Your task to perform on an android device: turn off wifi Image 0: 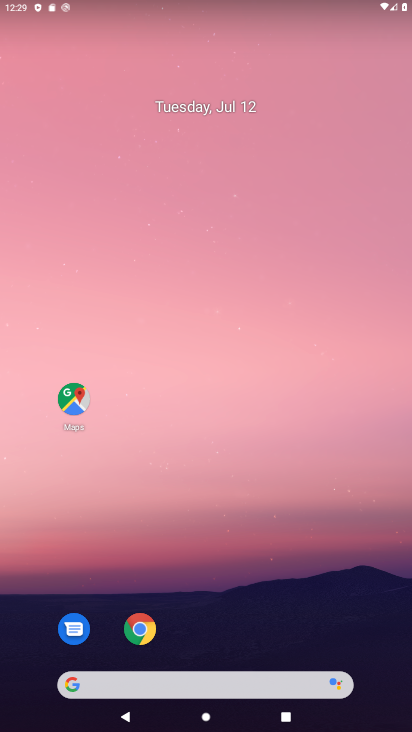
Step 0: drag from (276, 688) to (404, 204)
Your task to perform on an android device: turn off wifi Image 1: 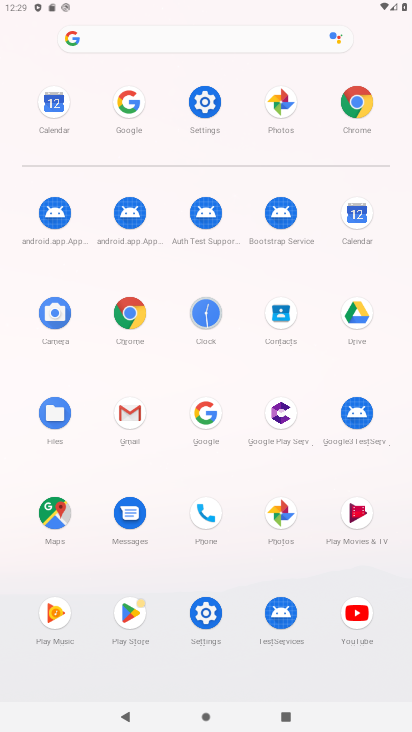
Step 1: click (208, 95)
Your task to perform on an android device: turn off wifi Image 2: 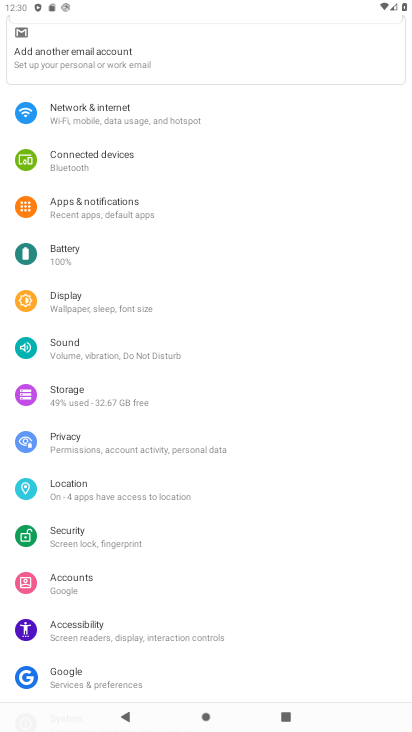
Step 2: click (140, 118)
Your task to perform on an android device: turn off wifi Image 3: 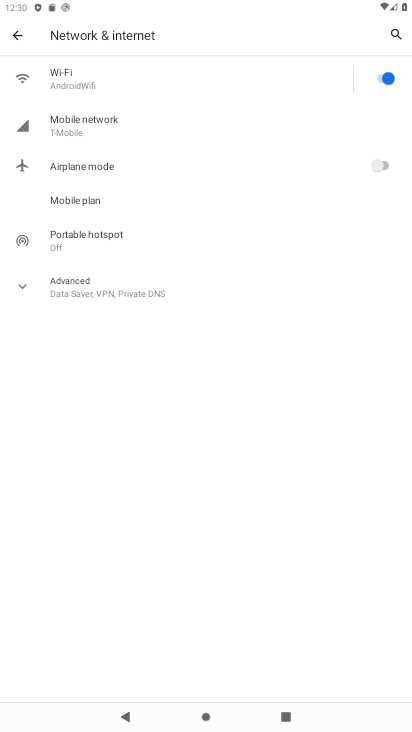
Step 3: click (387, 77)
Your task to perform on an android device: turn off wifi Image 4: 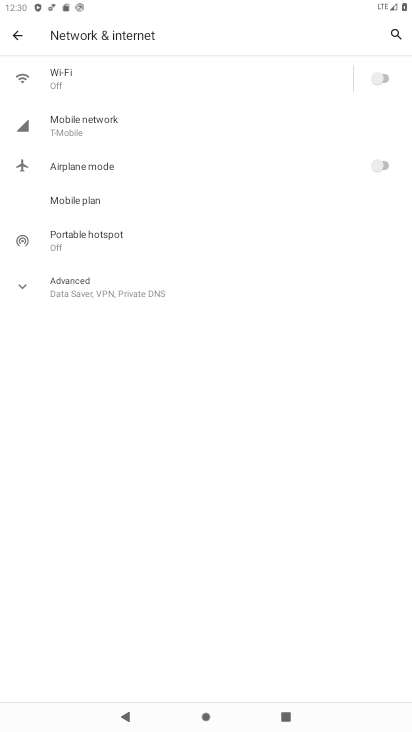
Step 4: task complete